Your task to perform on an android device: Open settings Image 0: 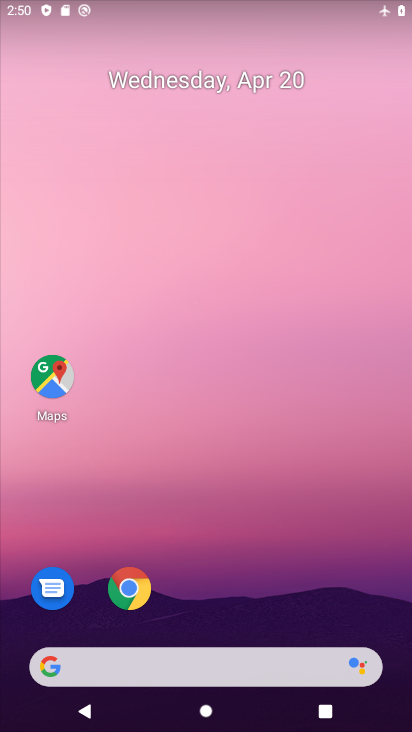
Step 0: drag from (171, 663) to (178, 39)
Your task to perform on an android device: Open settings Image 1: 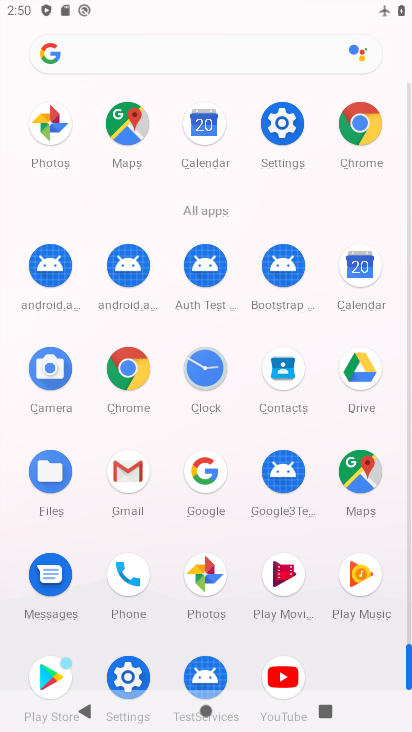
Step 1: drag from (164, 639) to (187, 222)
Your task to perform on an android device: Open settings Image 2: 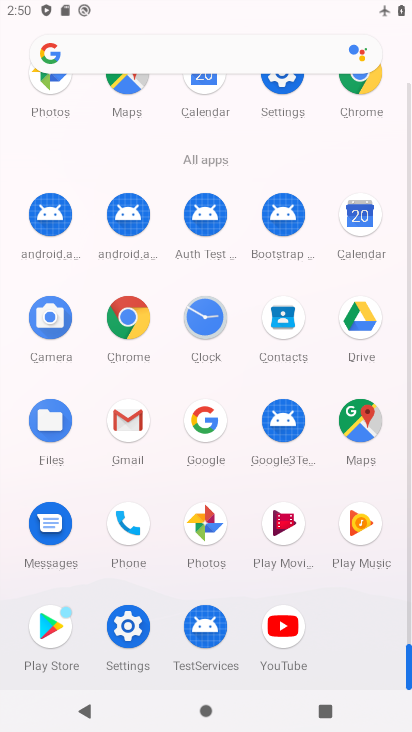
Step 2: click (129, 617)
Your task to perform on an android device: Open settings Image 3: 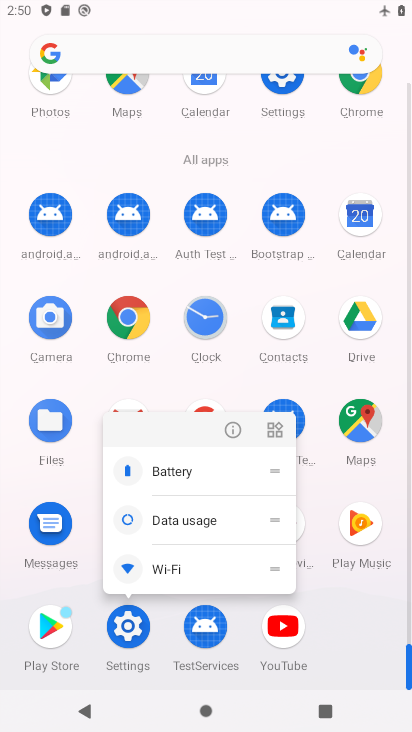
Step 3: click (129, 617)
Your task to perform on an android device: Open settings Image 4: 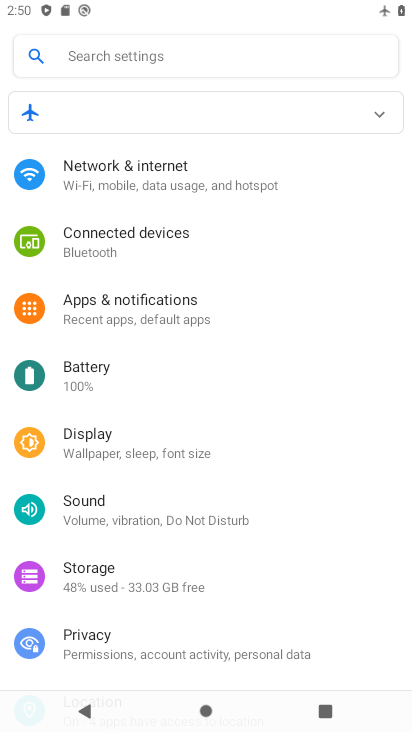
Step 4: task complete